Your task to perform on an android device: Go to location settings Image 0: 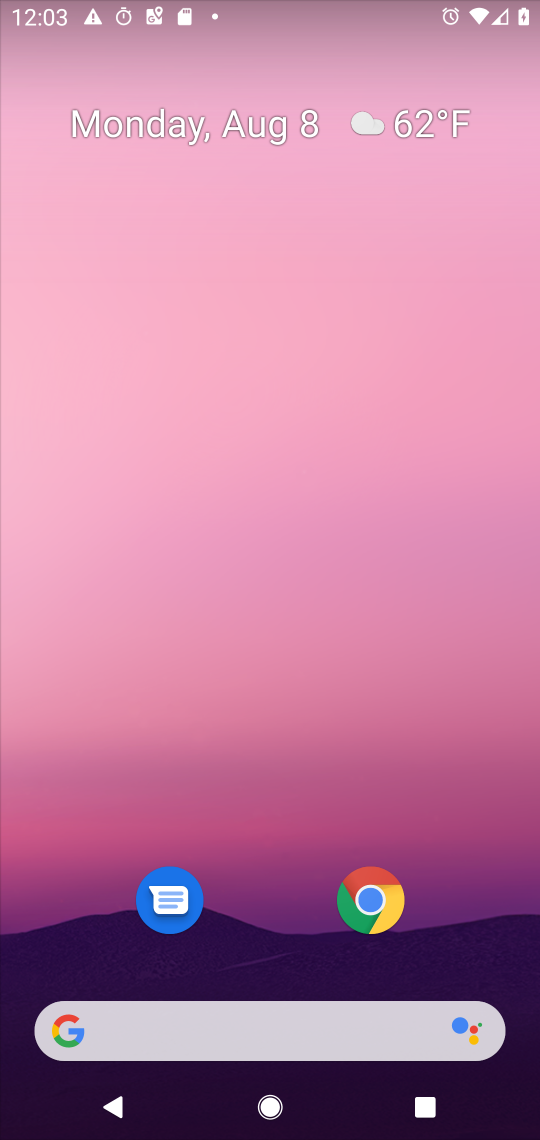
Step 0: press home button
Your task to perform on an android device: Go to location settings Image 1: 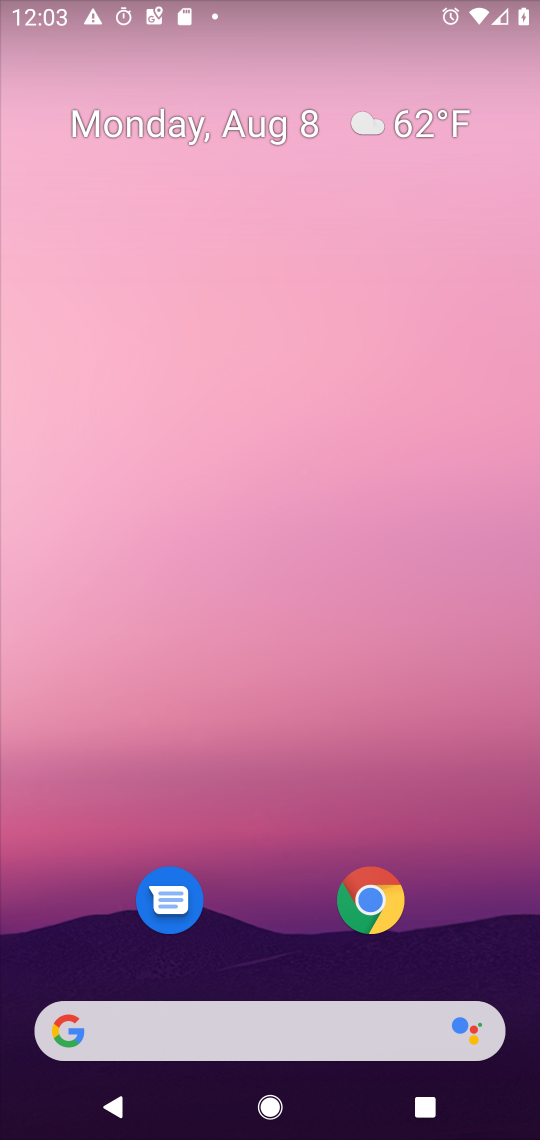
Step 1: drag from (273, 951) to (278, 142)
Your task to perform on an android device: Go to location settings Image 2: 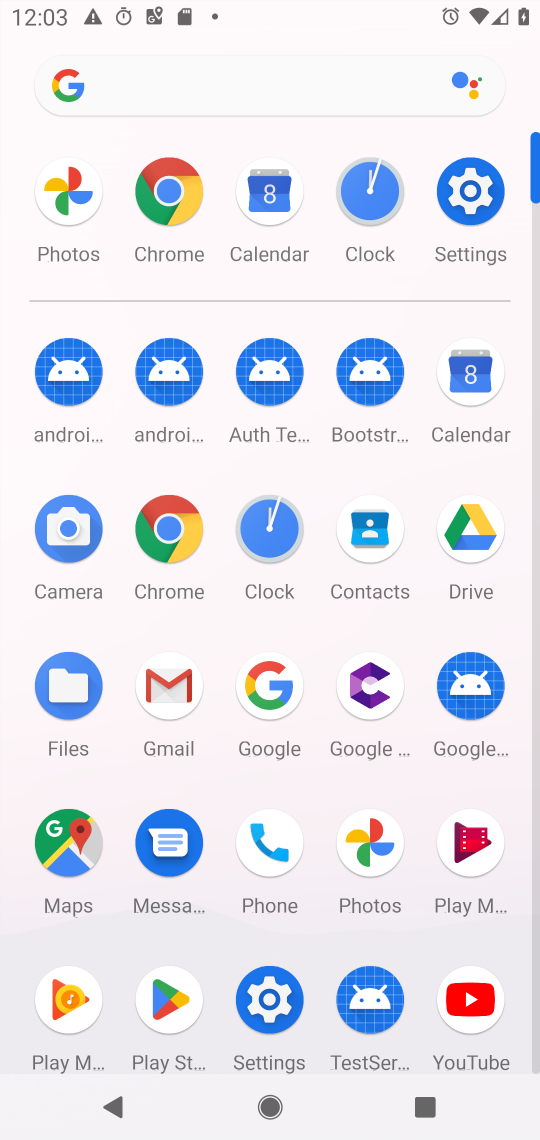
Step 2: click (461, 190)
Your task to perform on an android device: Go to location settings Image 3: 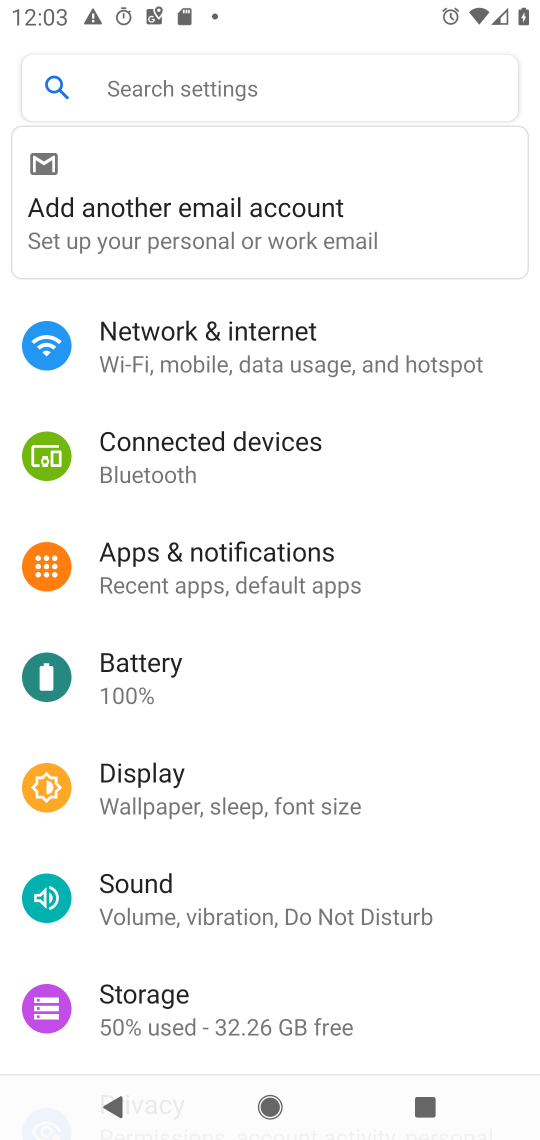
Step 3: drag from (282, 951) to (291, 169)
Your task to perform on an android device: Go to location settings Image 4: 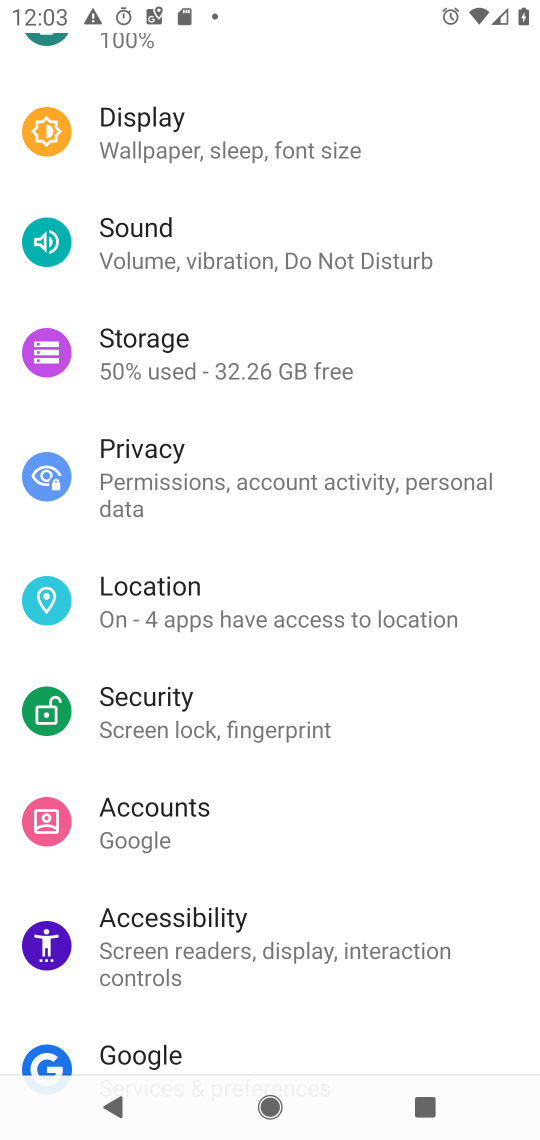
Step 4: click (218, 589)
Your task to perform on an android device: Go to location settings Image 5: 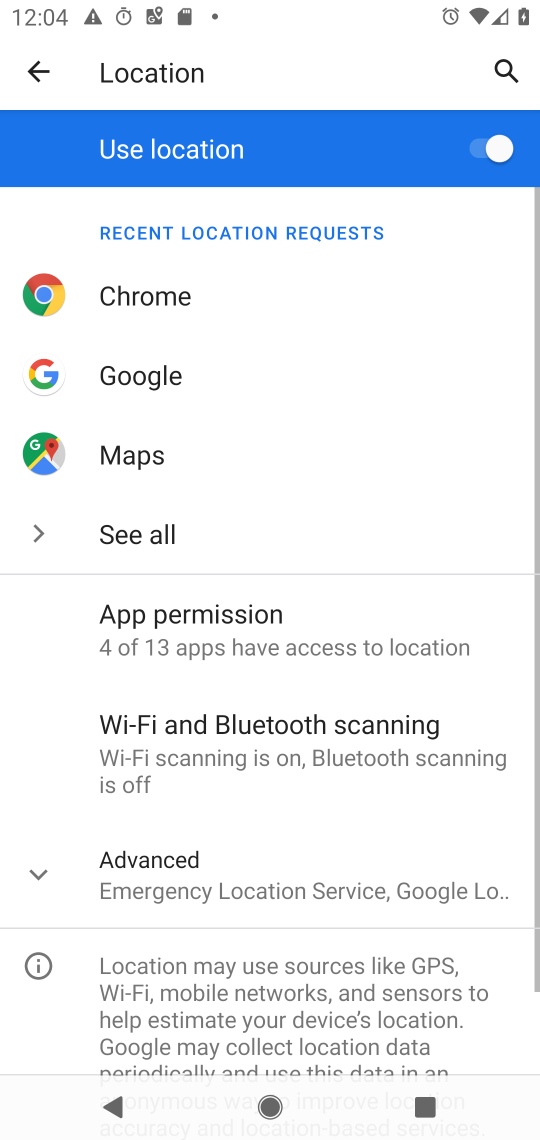
Step 5: click (44, 863)
Your task to perform on an android device: Go to location settings Image 6: 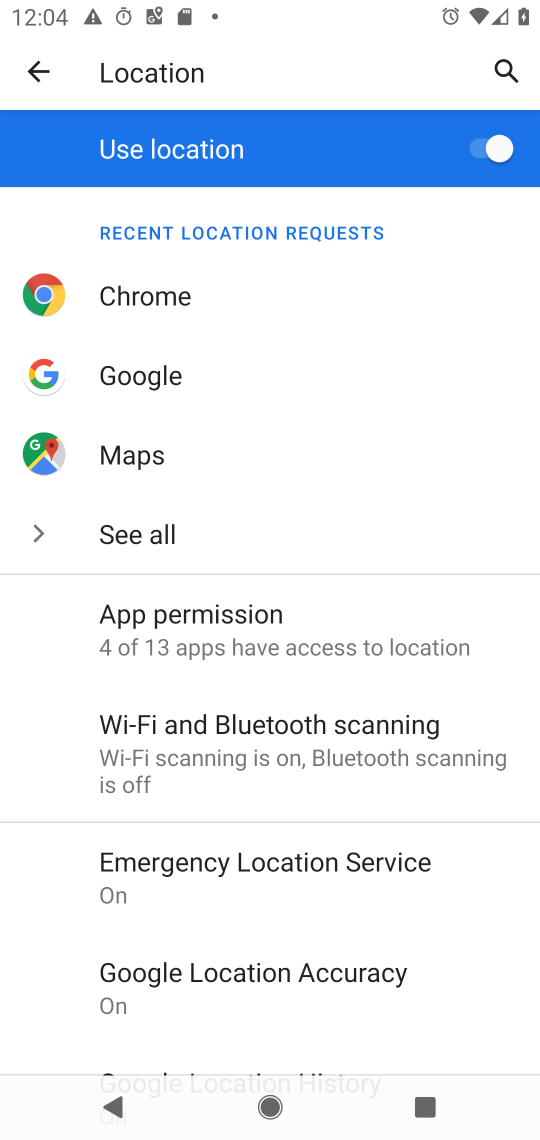
Step 6: task complete